Your task to perform on an android device: change the clock display to show seconds Image 0: 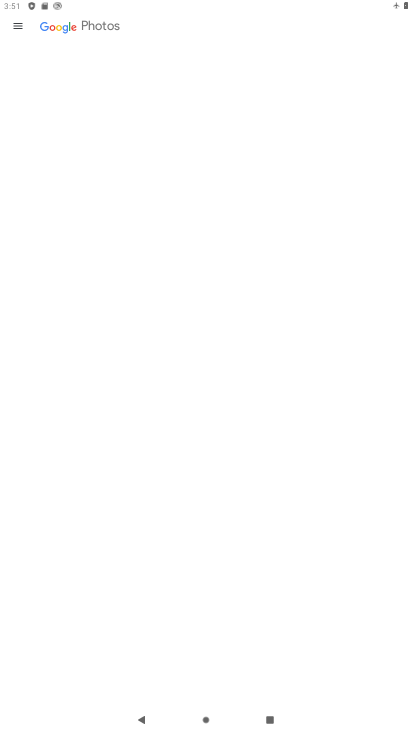
Step 0: press home button
Your task to perform on an android device: change the clock display to show seconds Image 1: 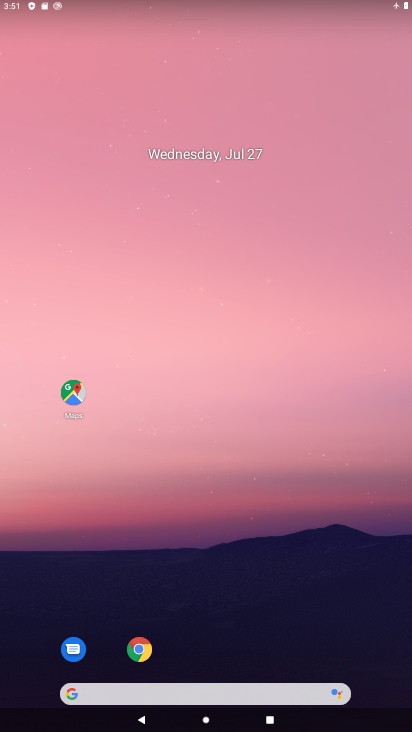
Step 1: drag from (275, 613) to (267, 67)
Your task to perform on an android device: change the clock display to show seconds Image 2: 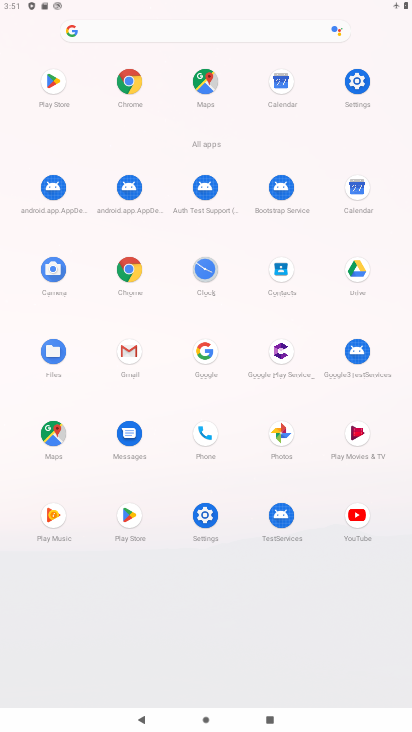
Step 2: click (195, 272)
Your task to perform on an android device: change the clock display to show seconds Image 3: 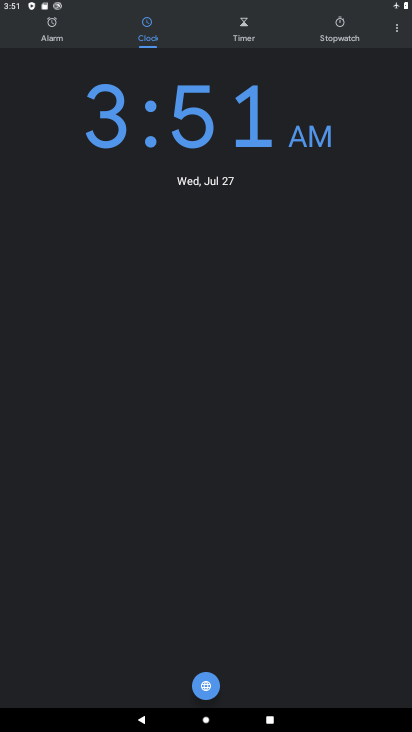
Step 3: click (404, 28)
Your task to perform on an android device: change the clock display to show seconds Image 4: 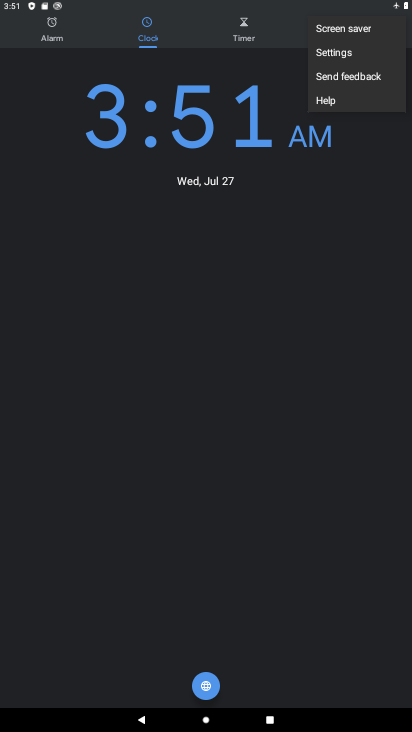
Step 4: click (366, 48)
Your task to perform on an android device: change the clock display to show seconds Image 5: 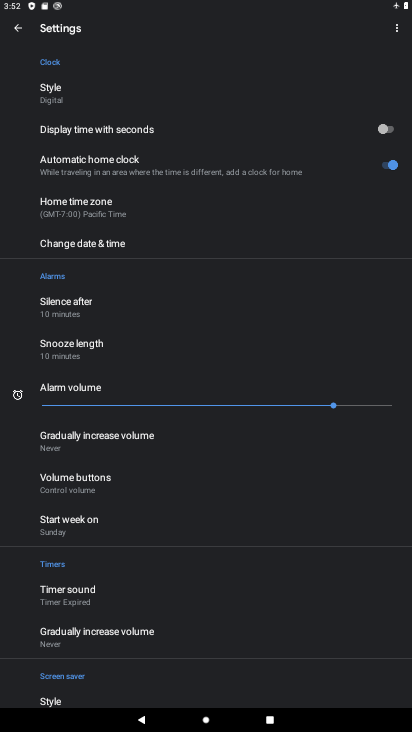
Step 5: click (373, 142)
Your task to perform on an android device: change the clock display to show seconds Image 6: 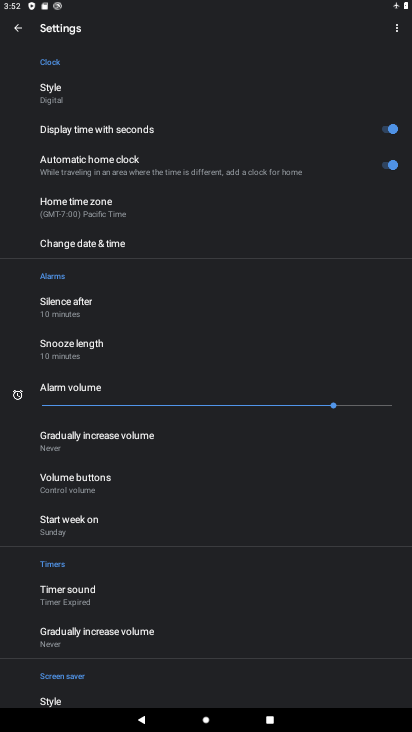
Step 6: task complete